Your task to perform on an android device: Go to internet settings Image 0: 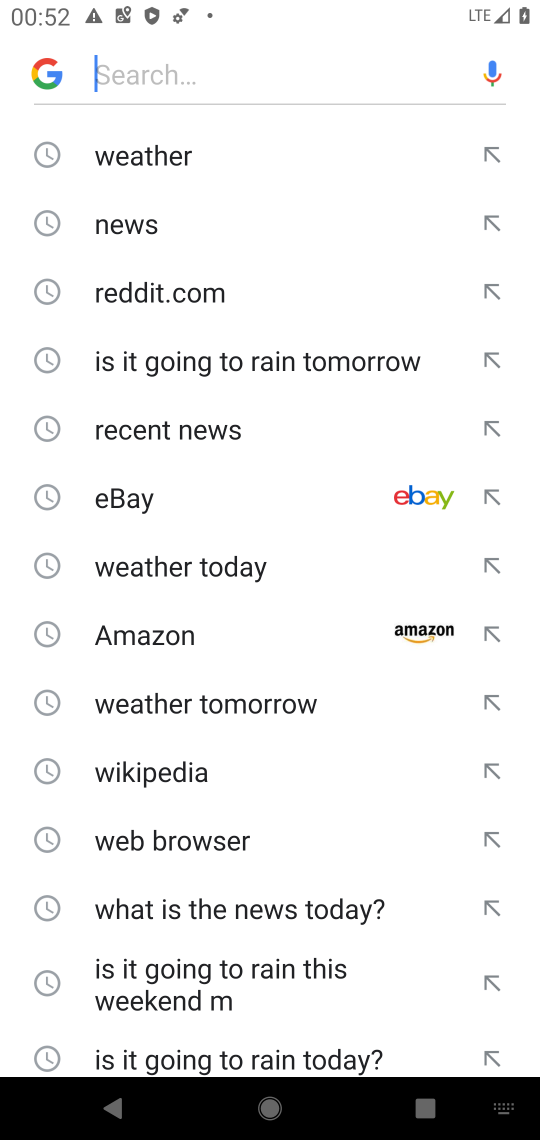
Step 0: press home button
Your task to perform on an android device: Go to internet settings Image 1: 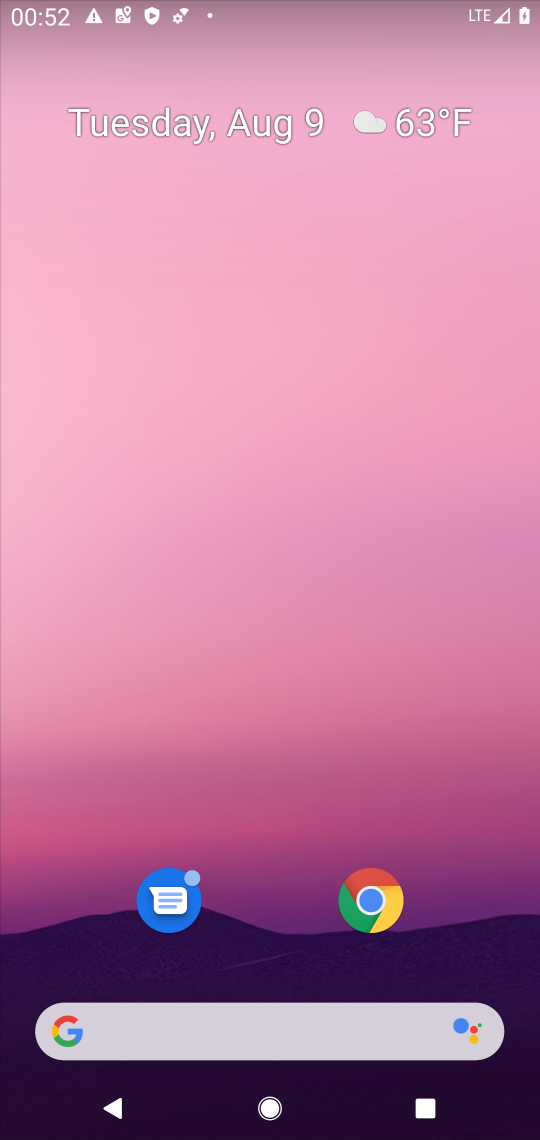
Step 1: drag from (255, 950) to (344, 217)
Your task to perform on an android device: Go to internet settings Image 2: 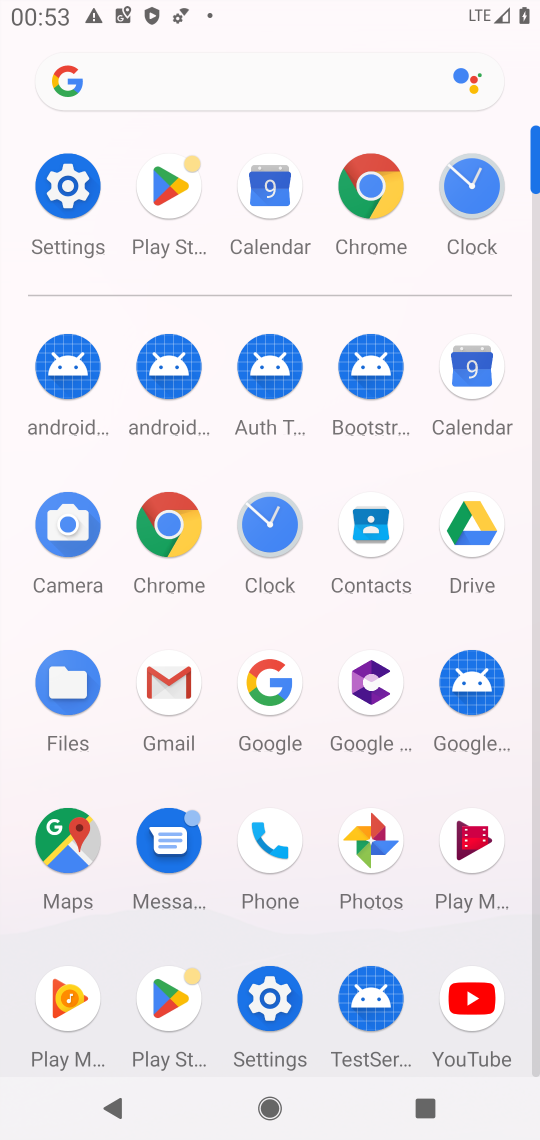
Step 2: click (69, 188)
Your task to perform on an android device: Go to internet settings Image 3: 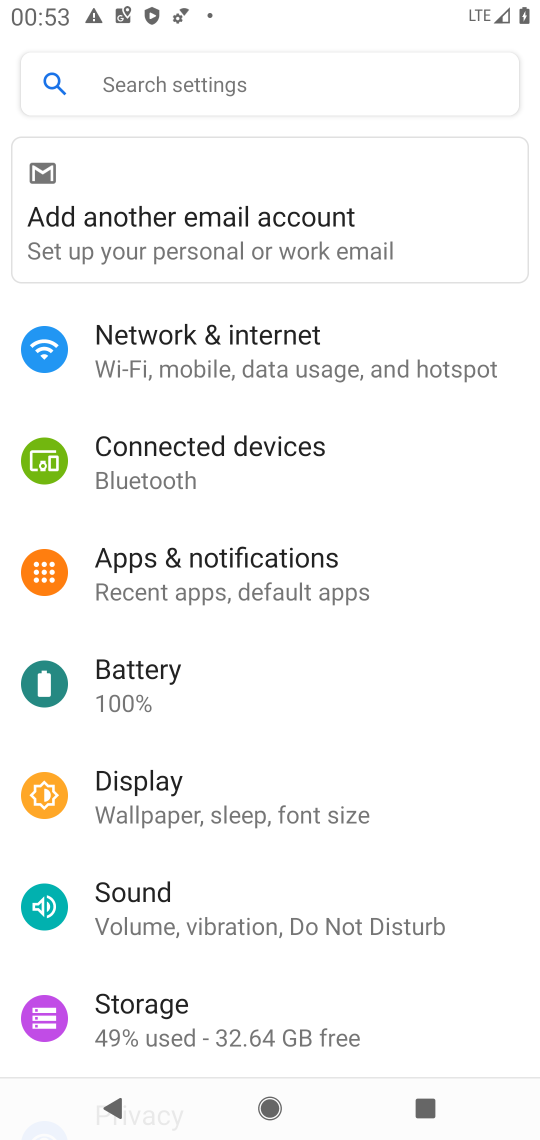
Step 3: drag from (461, 711) to (469, 496)
Your task to perform on an android device: Go to internet settings Image 4: 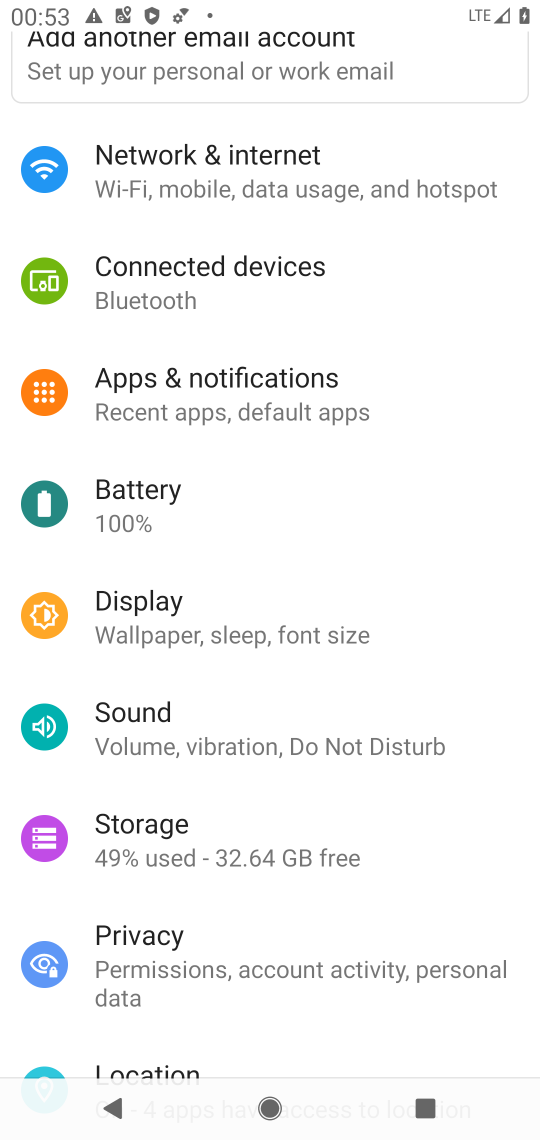
Step 4: drag from (470, 726) to (476, 495)
Your task to perform on an android device: Go to internet settings Image 5: 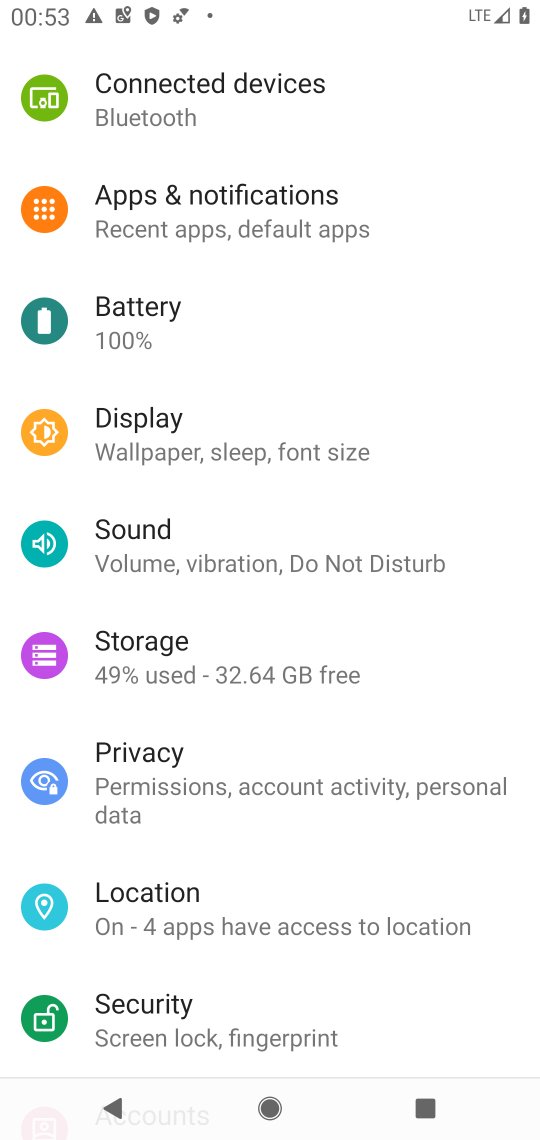
Step 5: drag from (451, 749) to (481, 538)
Your task to perform on an android device: Go to internet settings Image 6: 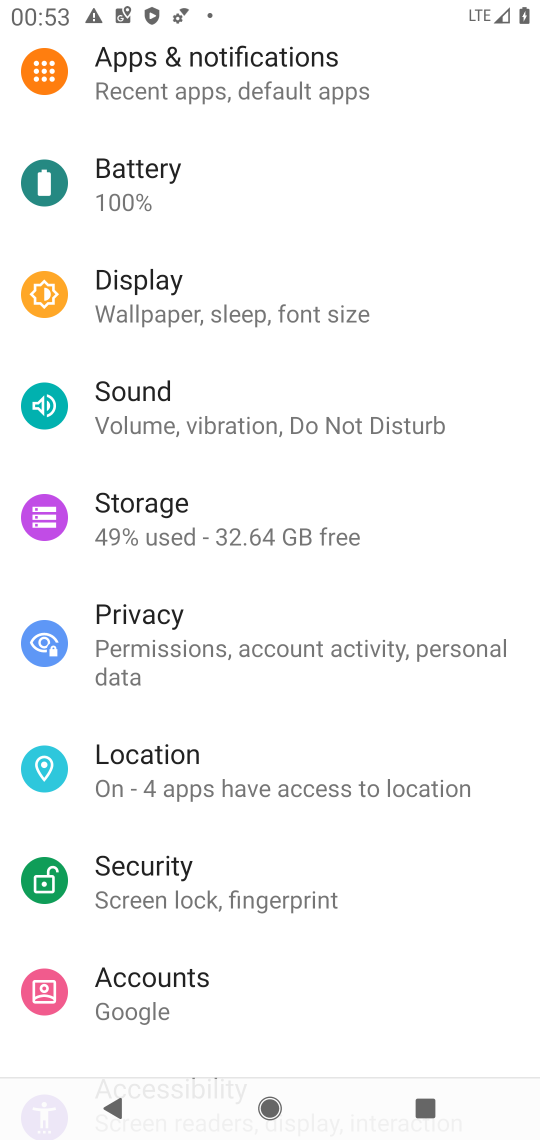
Step 6: drag from (456, 847) to (471, 535)
Your task to perform on an android device: Go to internet settings Image 7: 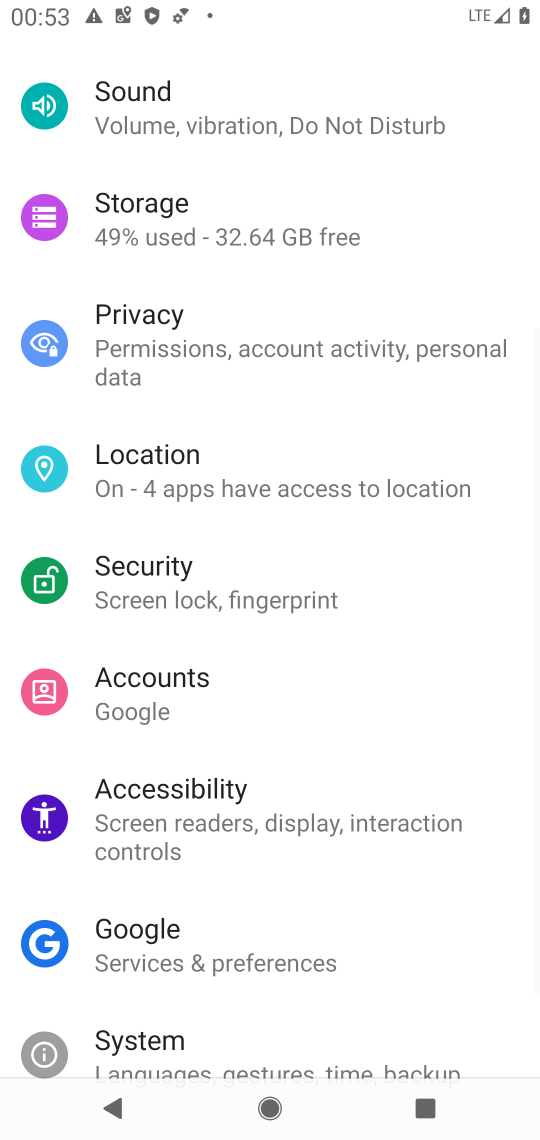
Step 7: drag from (473, 745) to (483, 529)
Your task to perform on an android device: Go to internet settings Image 8: 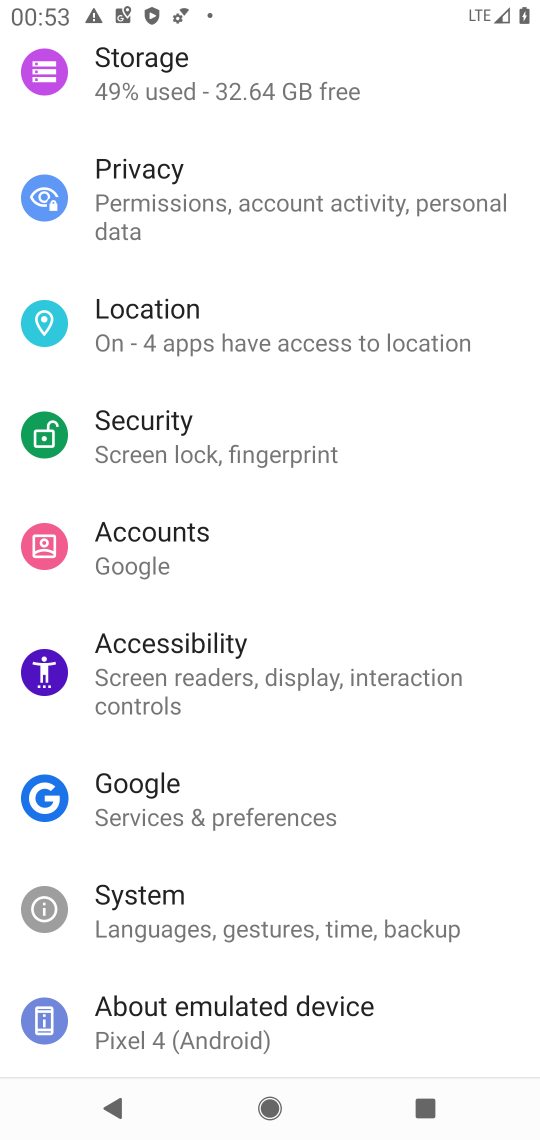
Step 8: drag from (500, 345) to (494, 595)
Your task to perform on an android device: Go to internet settings Image 9: 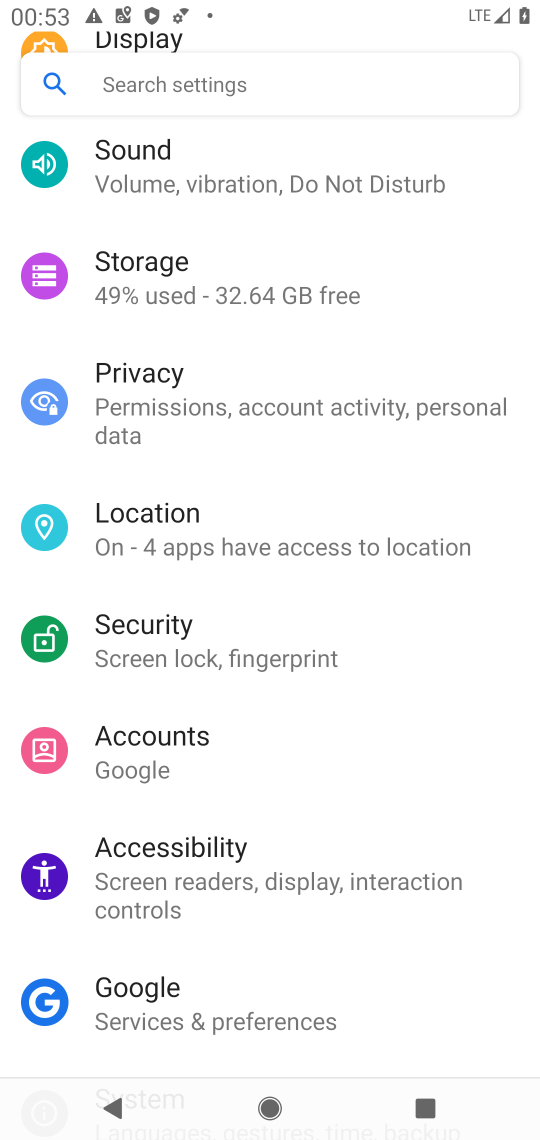
Step 9: drag from (507, 256) to (498, 497)
Your task to perform on an android device: Go to internet settings Image 10: 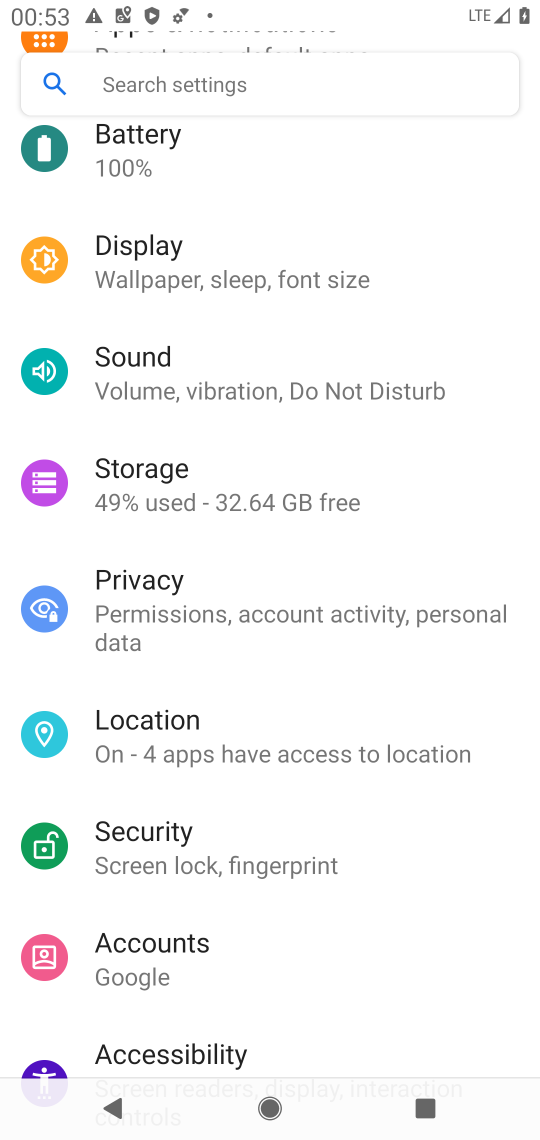
Step 10: drag from (497, 348) to (485, 565)
Your task to perform on an android device: Go to internet settings Image 11: 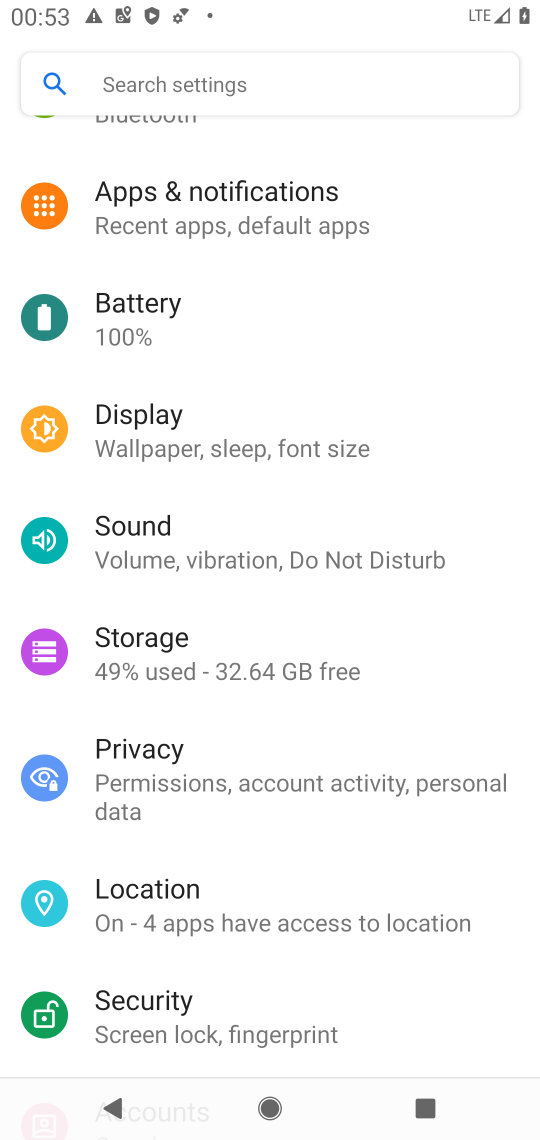
Step 11: drag from (472, 242) to (481, 527)
Your task to perform on an android device: Go to internet settings Image 12: 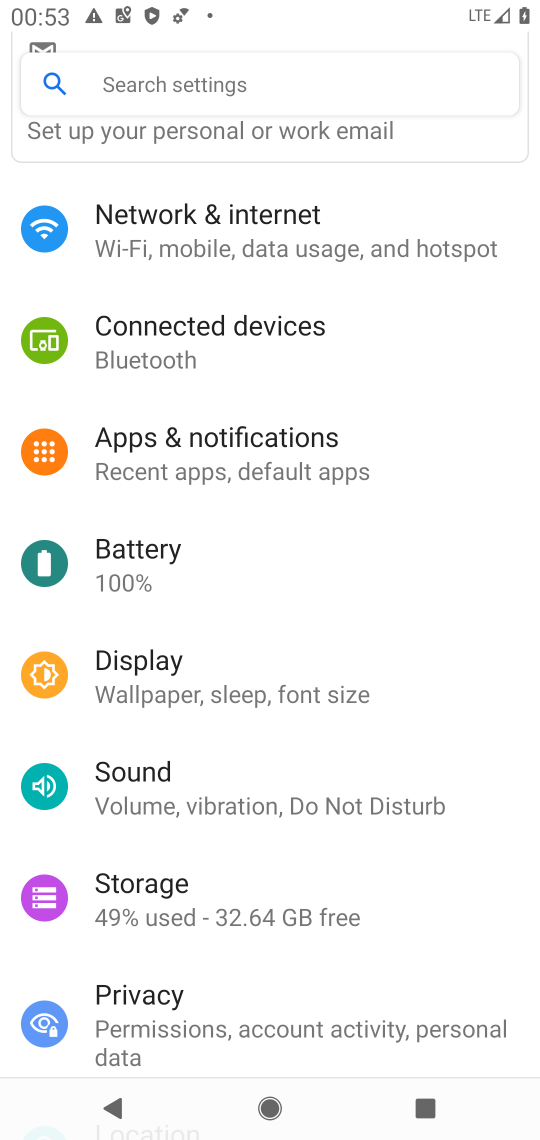
Step 12: drag from (459, 289) to (459, 549)
Your task to perform on an android device: Go to internet settings Image 13: 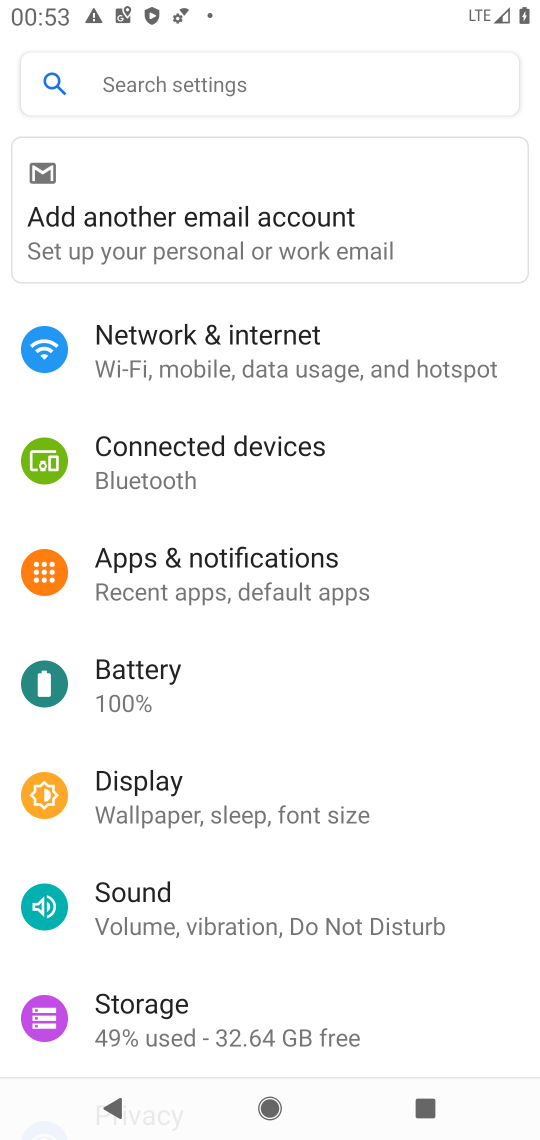
Step 13: drag from (473, 210) to (497, 576)
Your task to perform on an android device: Go to internet settings Image 14: 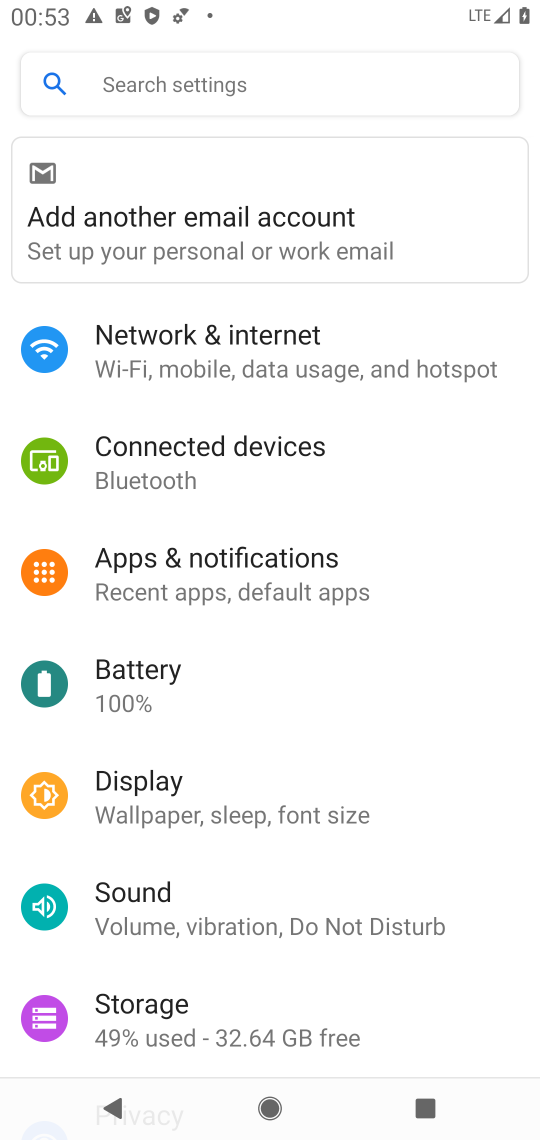
Step 14: click (316, 352)
Your task to perform on an android device: Go to internet settings Image 15: 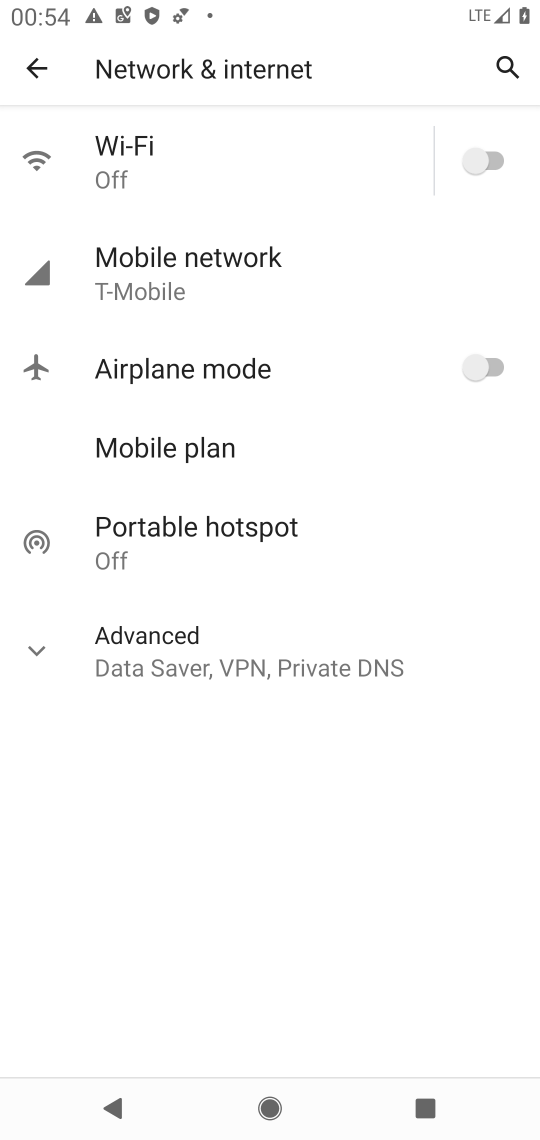
Step 15: task complete